Your task to perform on an android device: Is it going to rain tomorrow? Image 0: 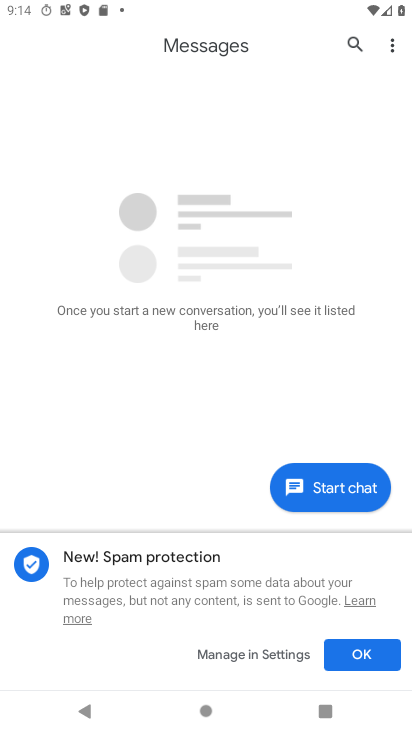
Step 0: press home button
Your task to perform on an android device: Is it going to rain tomorrow? Image 1: 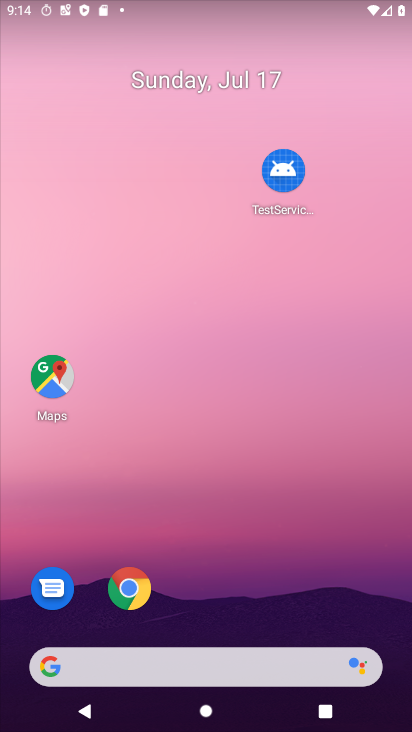
Step 1: drag from (242, 618) to (308, 85)
Your task to perform on an android device: Is it going to rain tomorrow? Image 2: 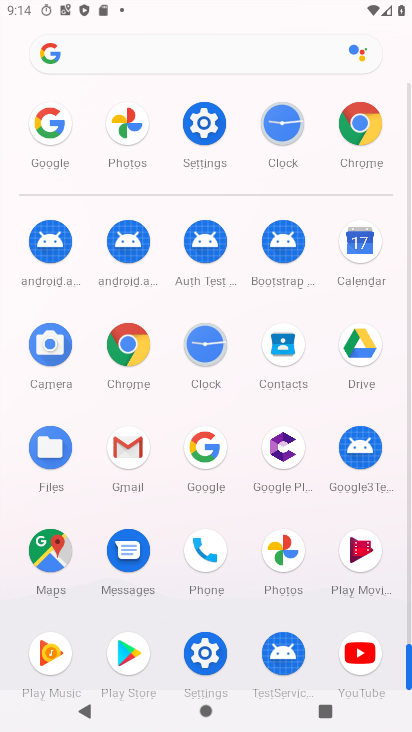
Step 2: click (214, 463)
Your task to perform on an android device: Is it going to rain tomorrow? Image 3: 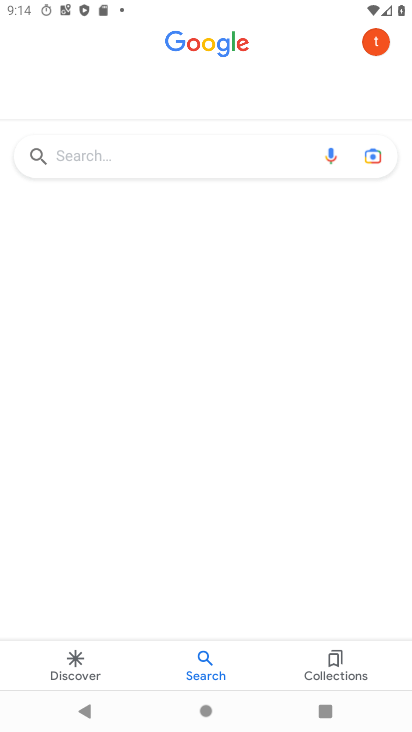
Step 3: click (225, 159)
Your task to perform on an android device: Is it going to rain tomorrow? Image 4: 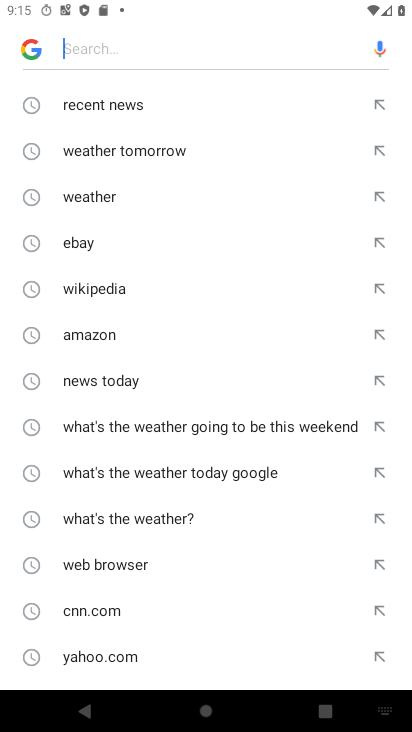
Step 4: click (193, 154)
Your task to perform on an android device: Is it going to rain tomorrow? Image 5: 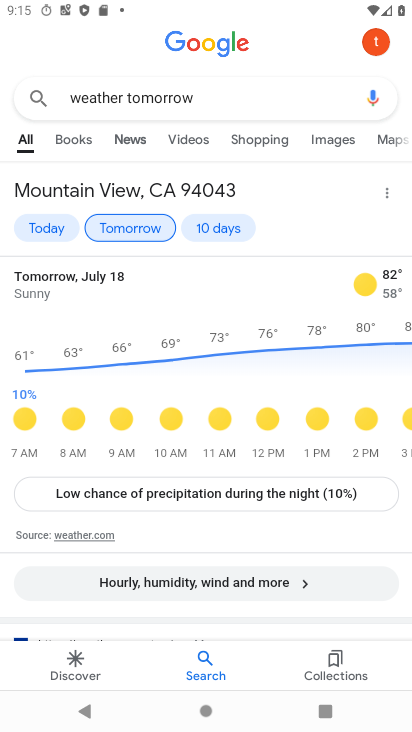
Step 5: task complete